Your task to perform on an android device: delete location history Image 0: 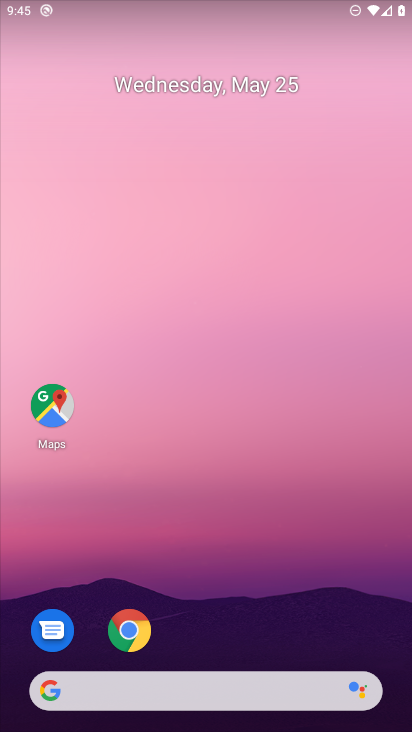
Step 0: drag from (221, 672) to (223, 80)
Your task to perform on an android device: delete location history Image 1: 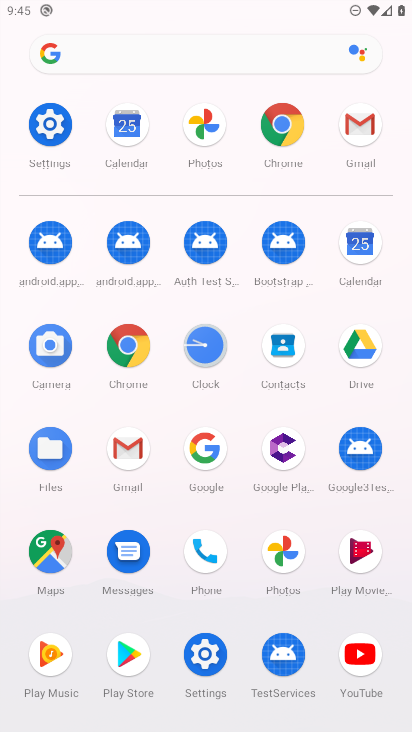
Step 1: click (51, 127)
Your task to perform on an android device: delete location history Image 2: 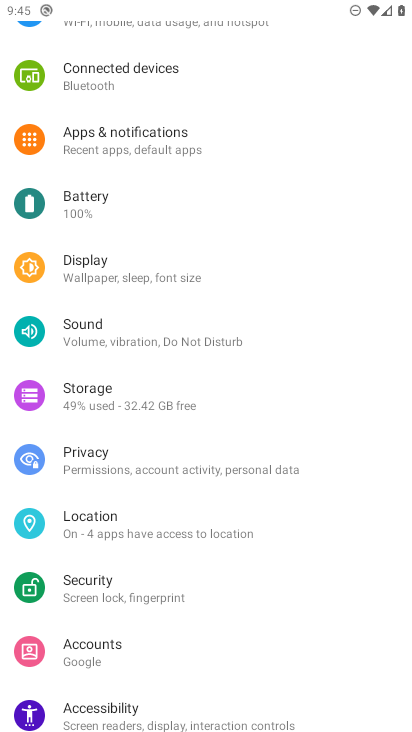
Step 2: click (103, 537)
Your task to perform on an android device: delete location history Image 3: 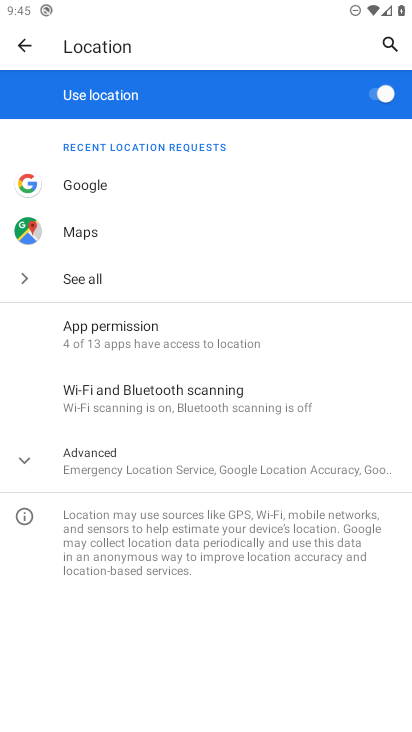
Step 3: click (108, 464)
Your task to perform on an android device: delete location history Image 4: 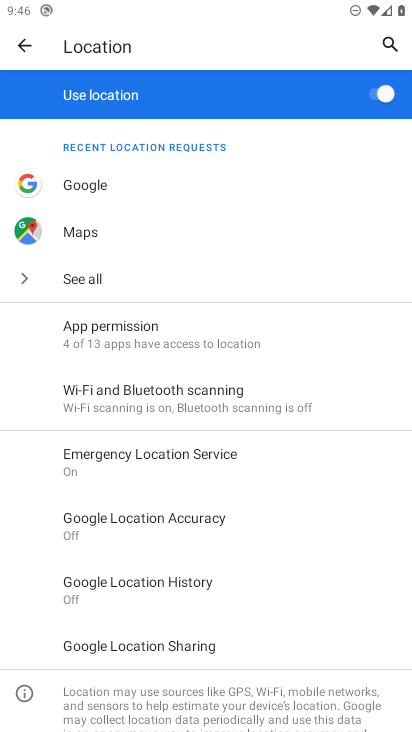
Step 4: click (130, 583)
Your task to perform on an android device: delete location history Image 5: 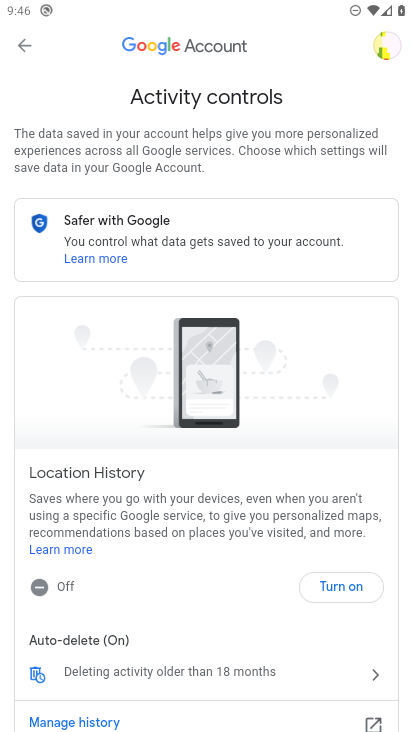
Step 5: click (264, 682)
Your task to perform on an android device: delete location history Image 6: 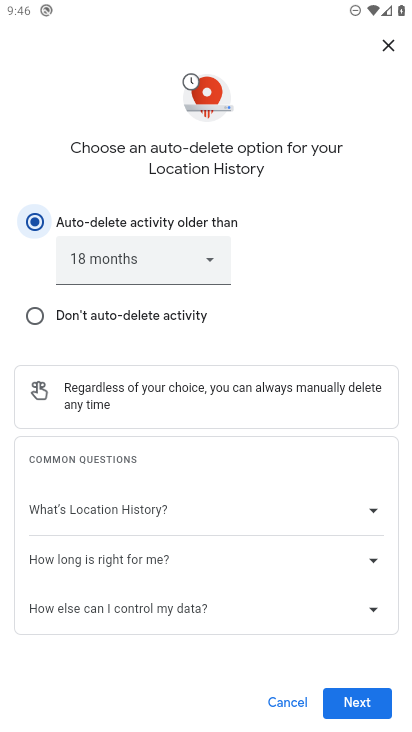
Step 6: click (334, 700)
Your task to perform on an android device: delete location history Image 7: 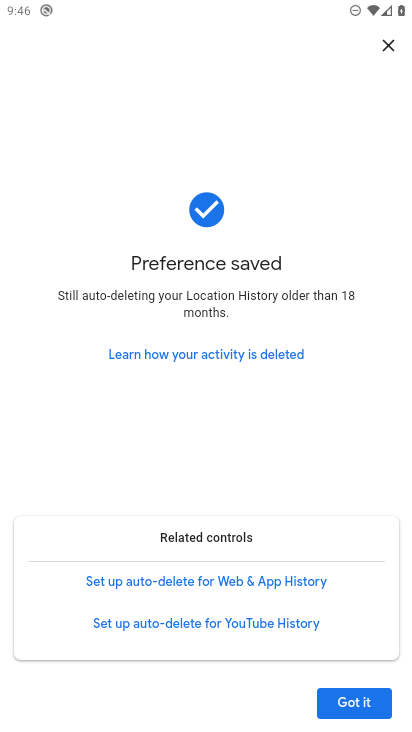
Step 7: click (369, 704)
Your task to perform on an android device: delete location history Image 8: 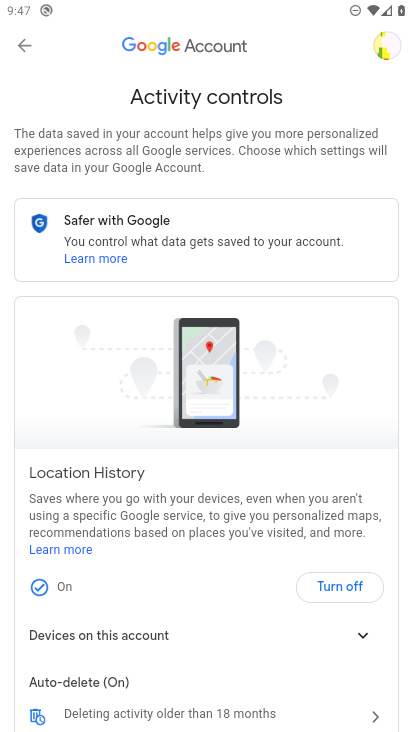
Step 8: task complete